Your task to perform on an android device: What's the weather going to be tomorrow? Image 0: 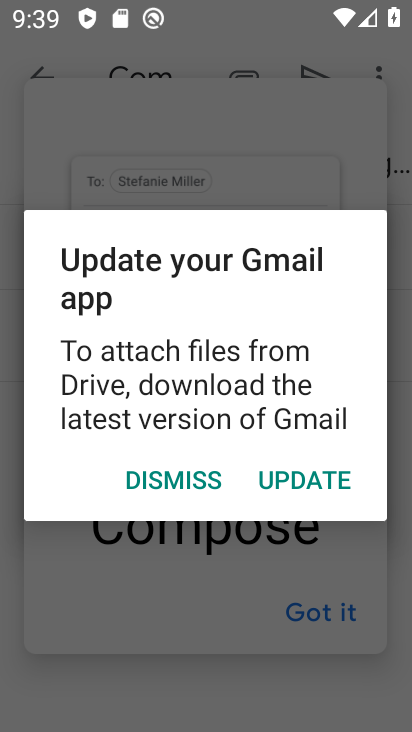
Step 0: press home button
Your task to perform on an android device: What's the weather going to be tomorrow? Image 1: 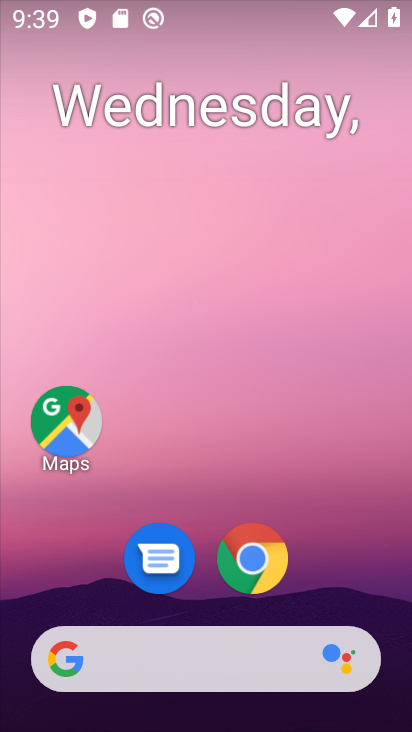
Step 1: click (168, 642)
Your task to perform on an android device: What's the weather going to be tomorrow? Image 2: 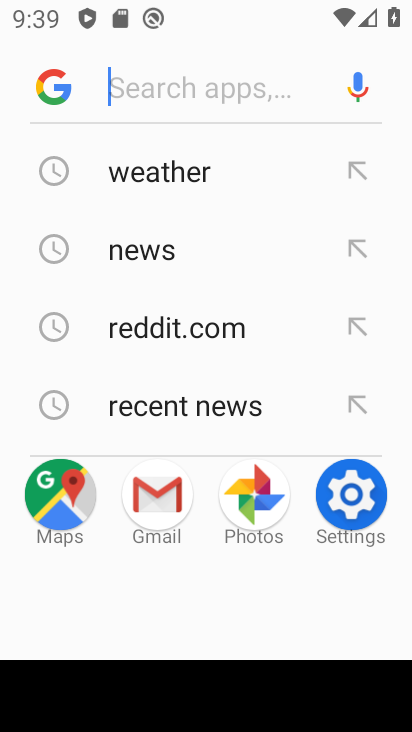
Step 2: click (151, 180)
Your task to perform on an android device: What's the weather going to be tomorrow? Image 3: 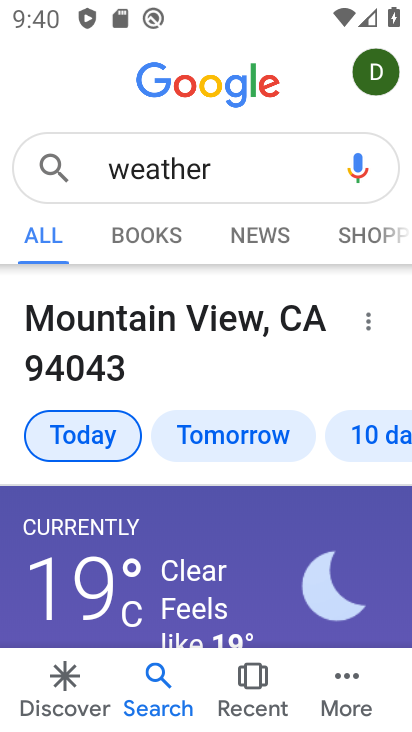
Step 3: click (207, 432)
Your task to perform on an android device: What's the weather going to be tomorrow? Image 4: 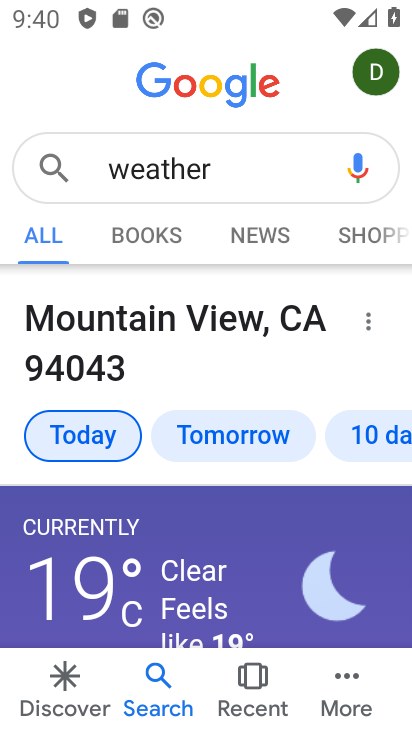
Step 4: task complete